Your task to perform on an android device: View the shopping cart on ebay. Image 0: 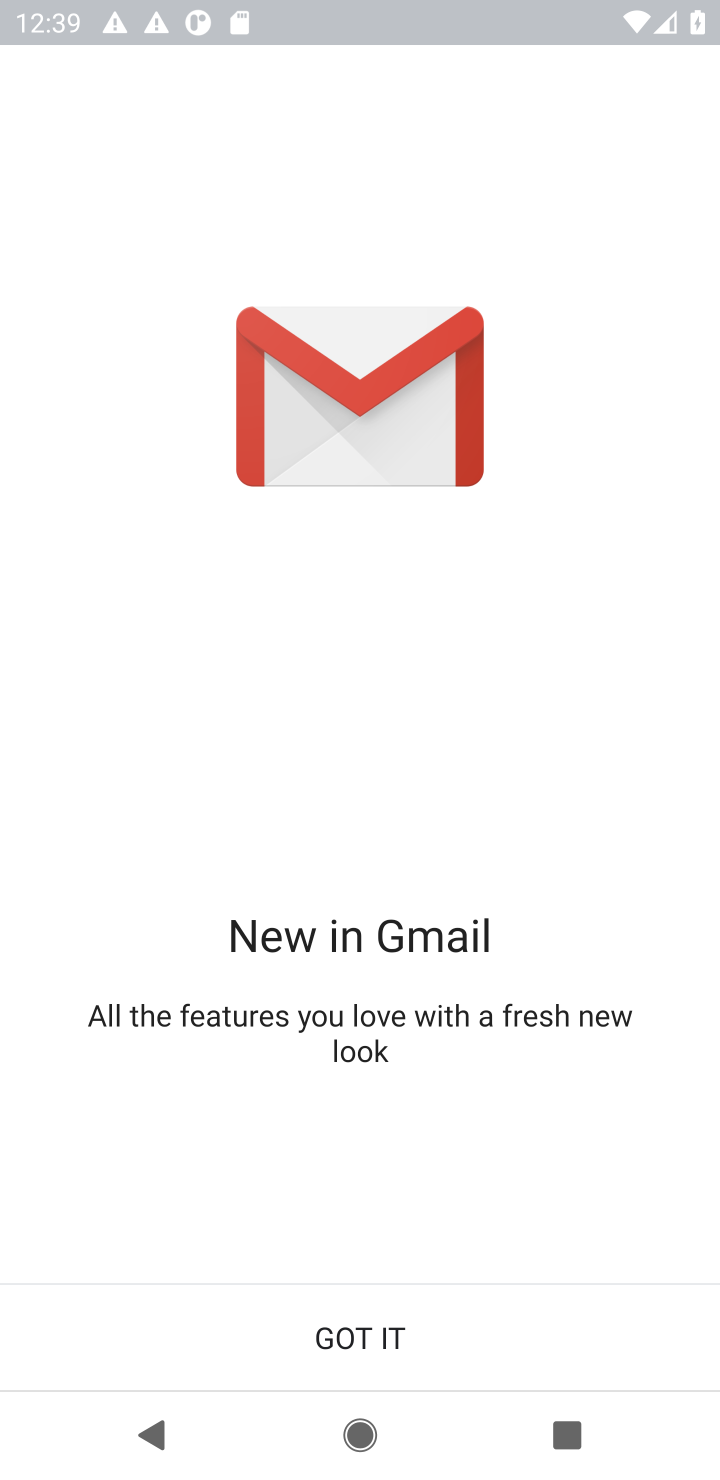
Step 0: press home button
Your task to perform on an android device: View the shopping cart on ebay. Image 1: 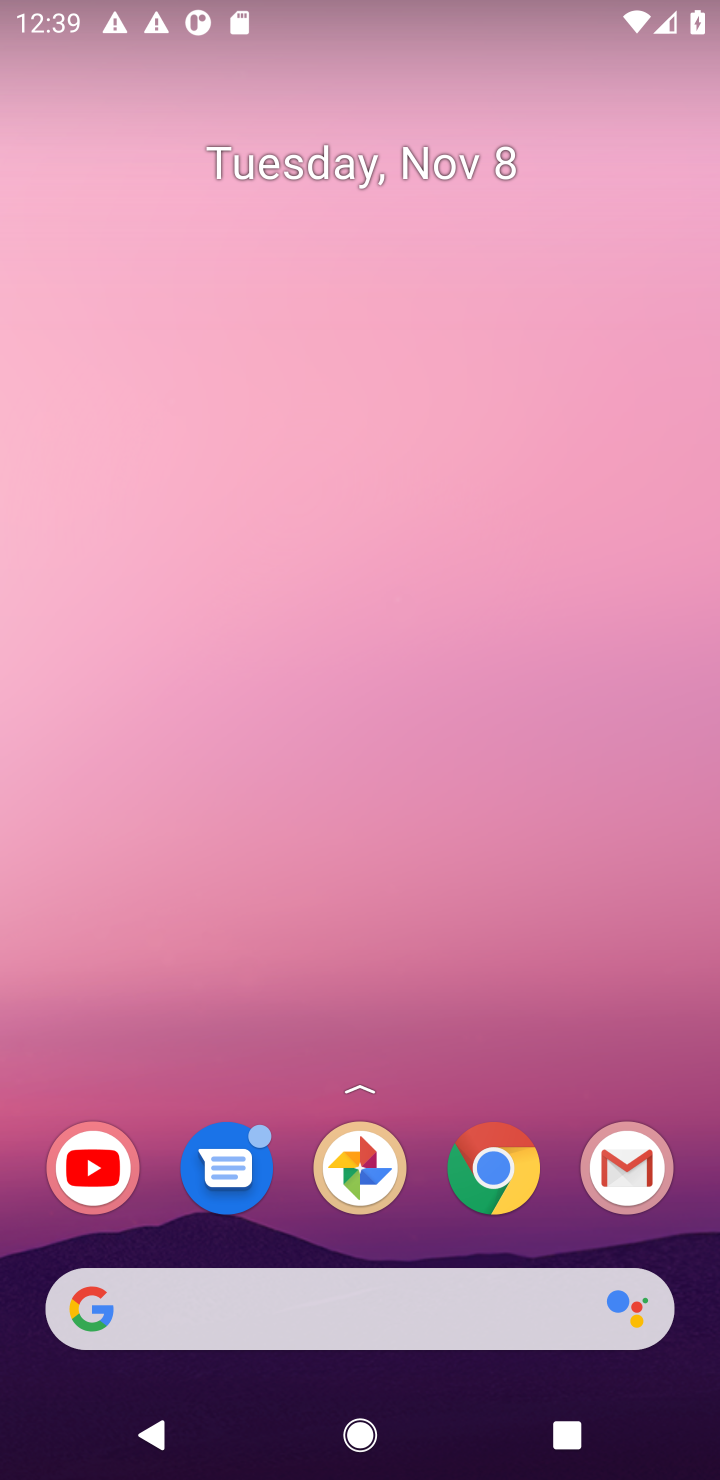
Step 1: click (318, 162)
Your task to perform on an android device: View the shopping cart on ebay. Image 2: 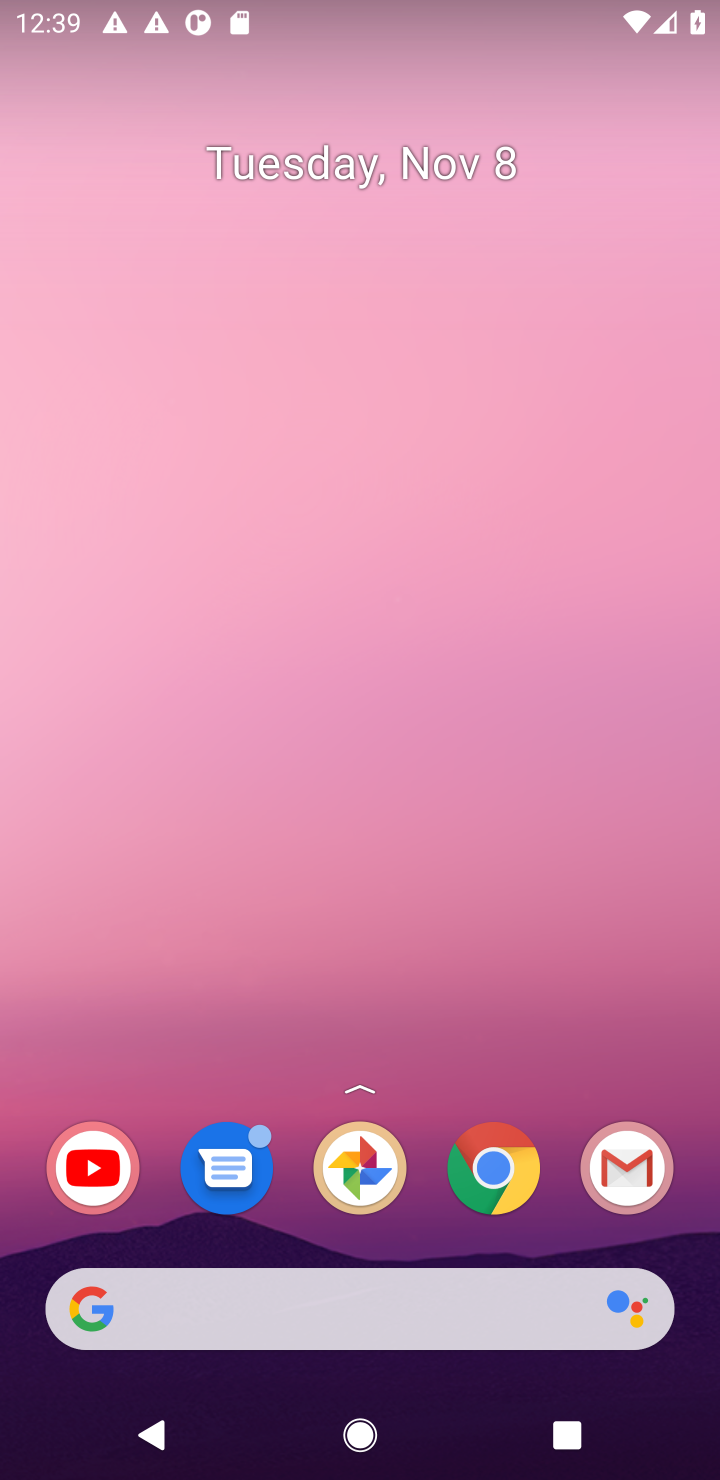
Step 2: drag from (379, 974) to (363, 222)
Your task to perform on an android device: View the shopping cart on ebay. Image 3: 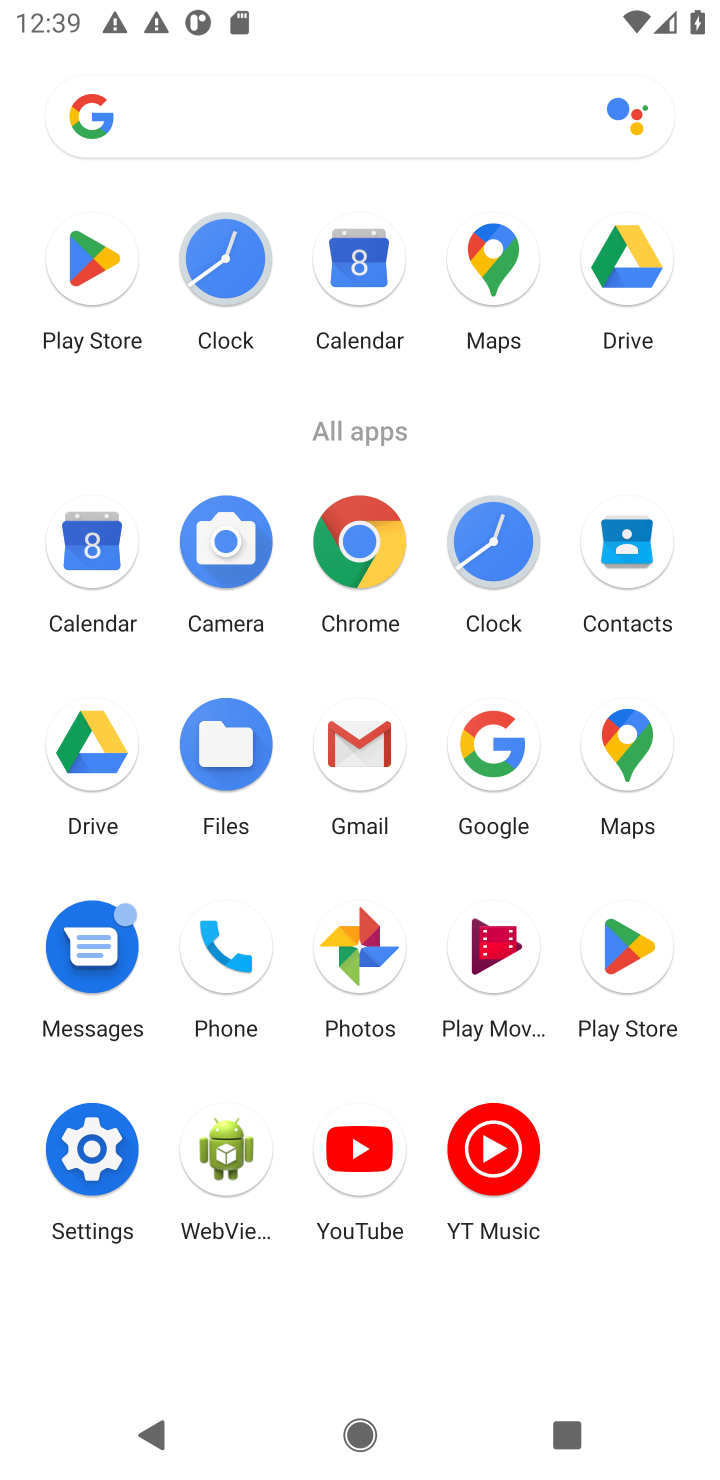
Step 3: click (370, 565)
Your task to perform on an android device: View the shopping cart on ebay. Image 4: 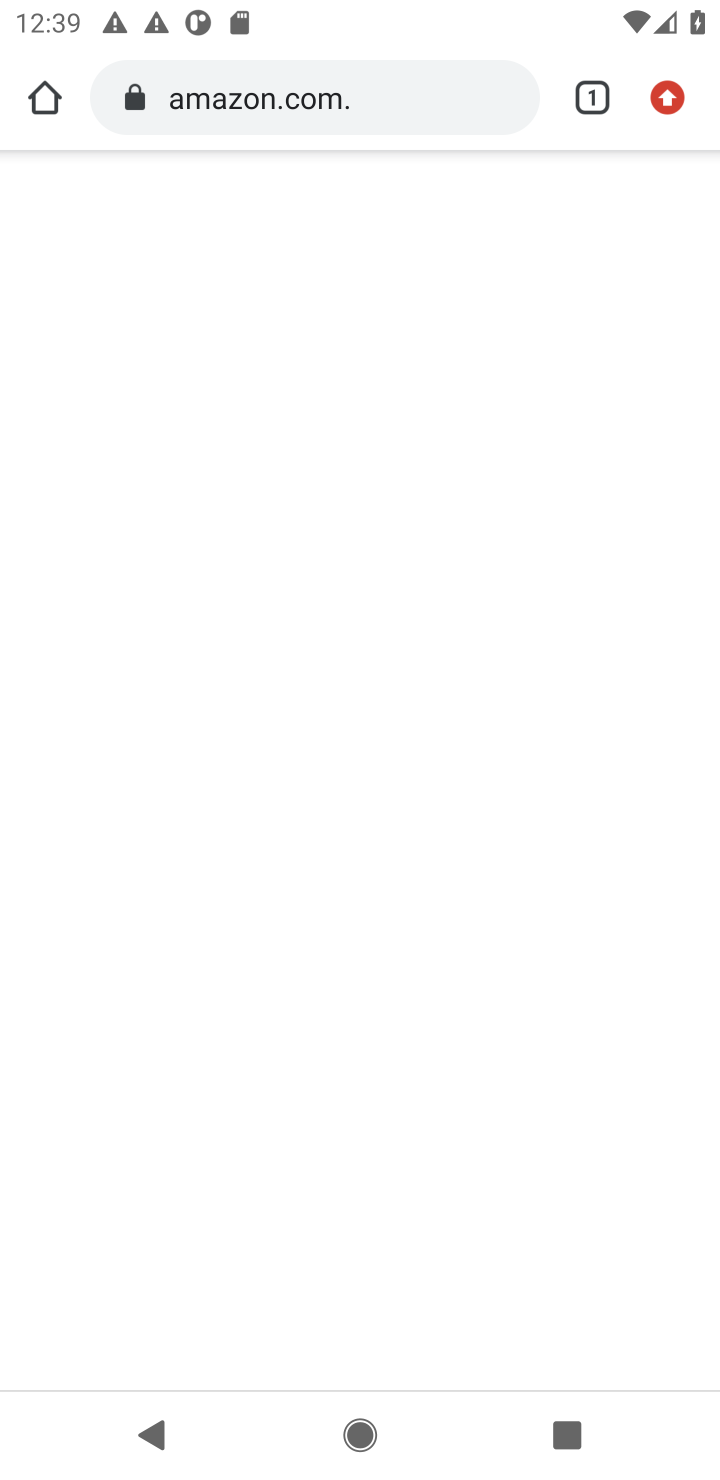
Step 4: click (281, 86)
Your task to perform on an android device: View the shopping cart on ebay. Image 5: 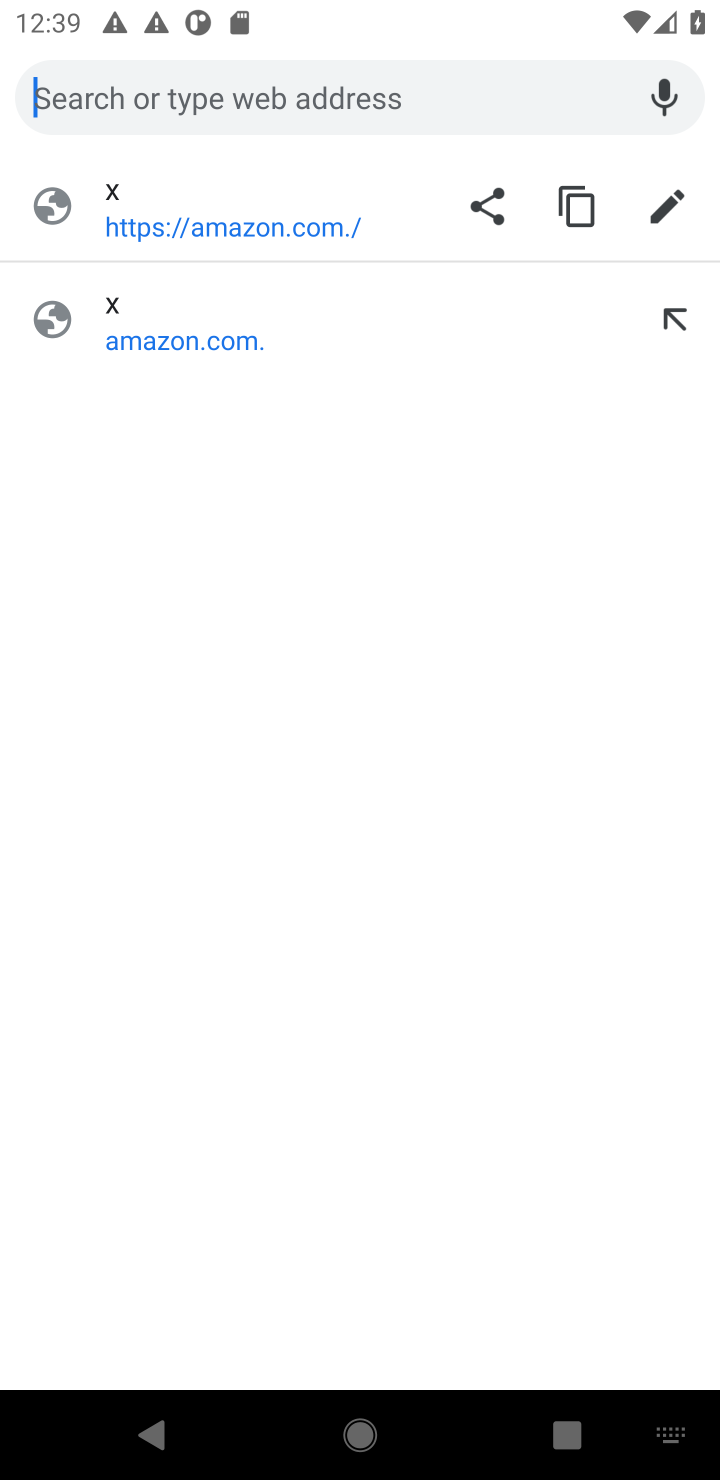
Step 5: type "ebay"
Your task to perform on an android device: View the shopping cart on ebay. Image 6: 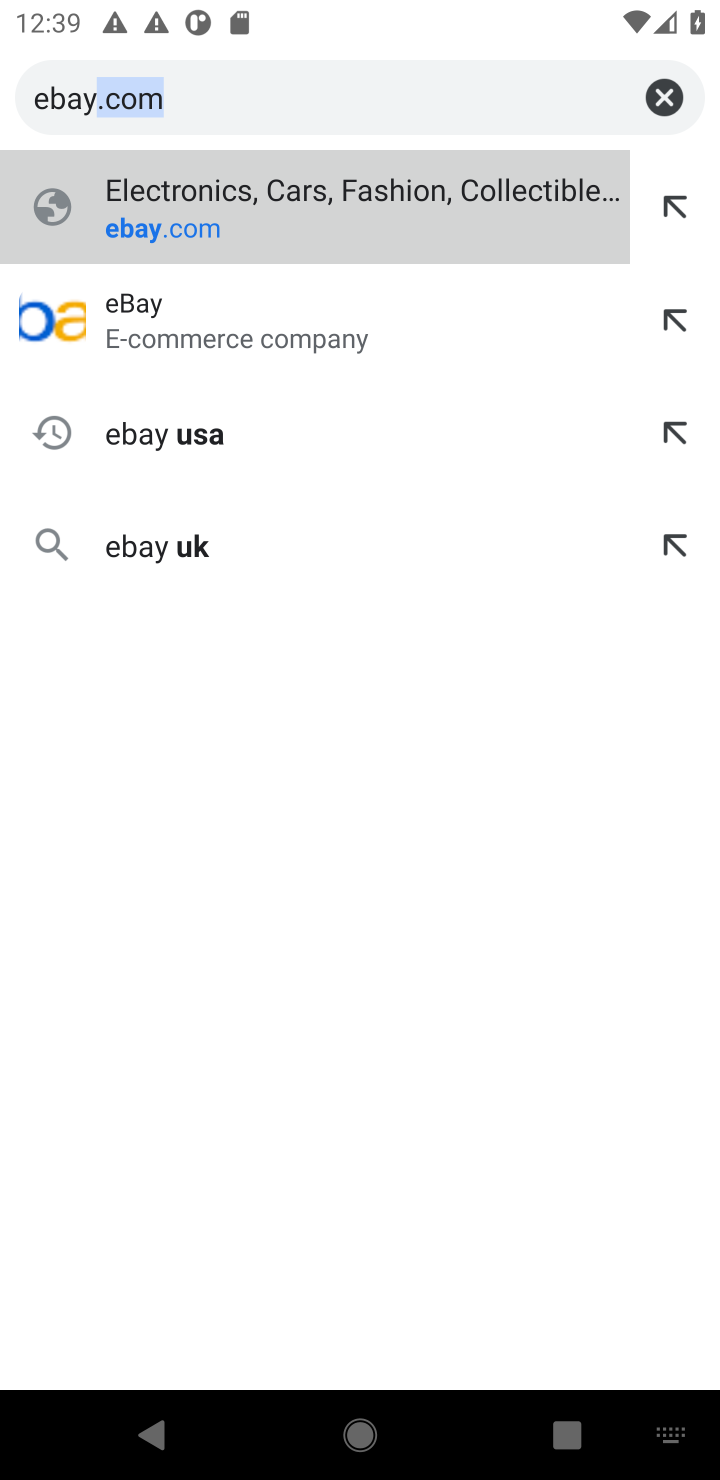
Step 6: press enter
Your task to perform on an android device: View the shopping cart on ebay. Image 7: 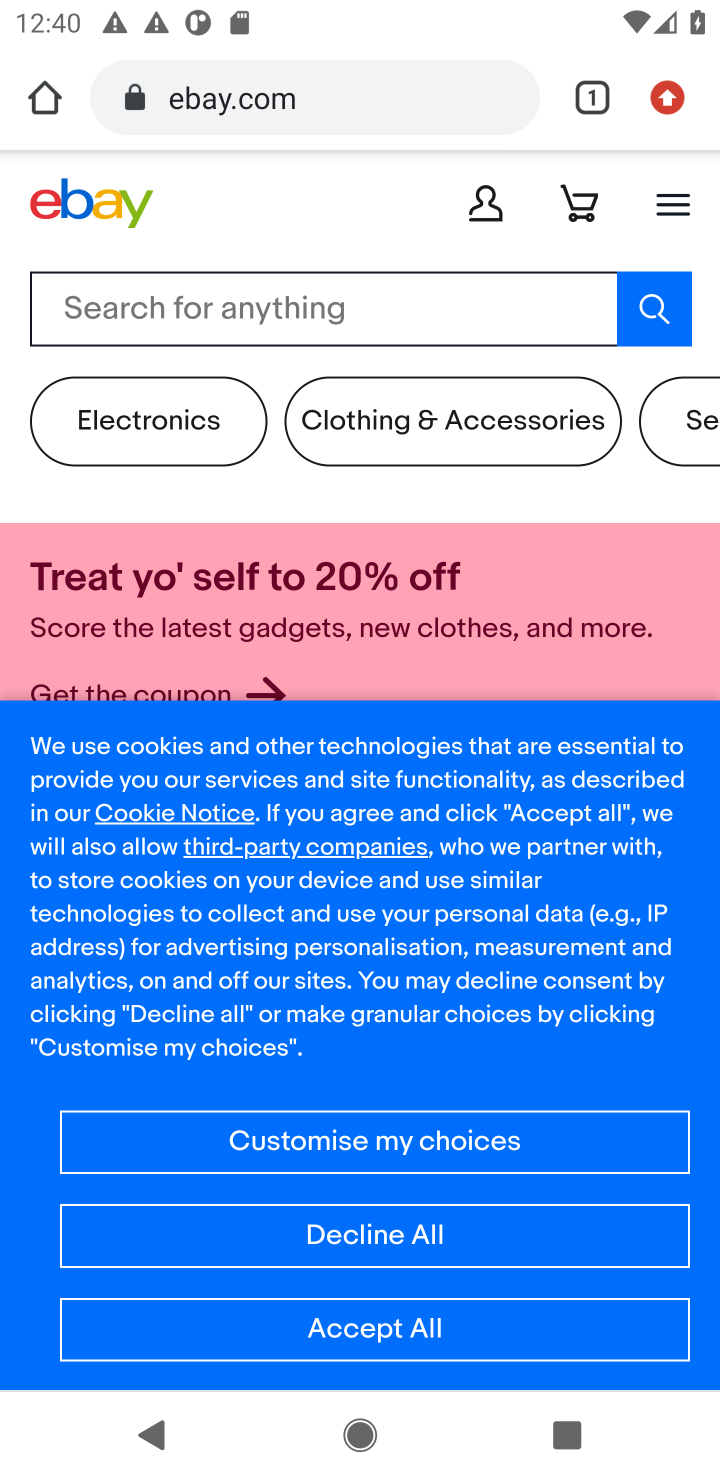
Step 7: click (588, 184)
Your task to perform on an android device: View the shopping cart on ebay. Image 8: 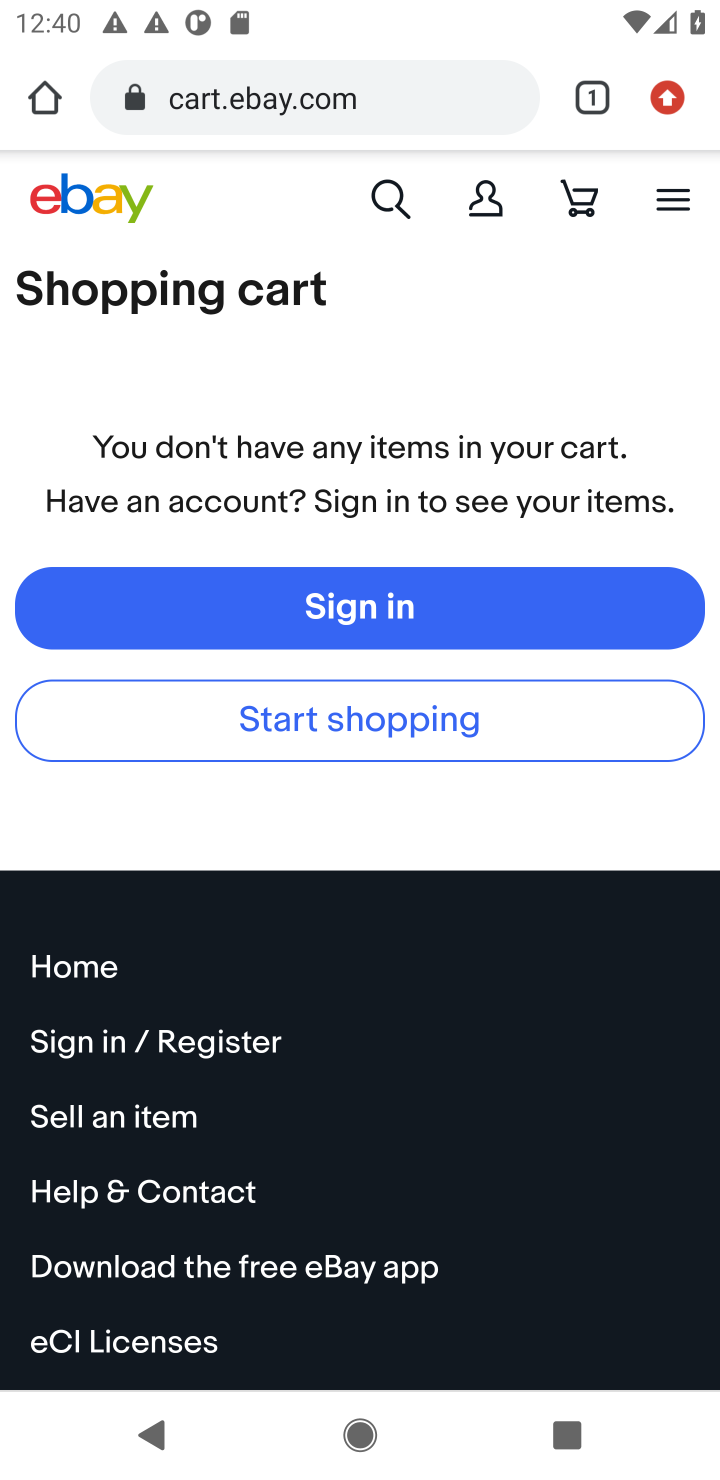
Step 8: task complete